Your task to perform on an android device: Go to battery settings Image 0: 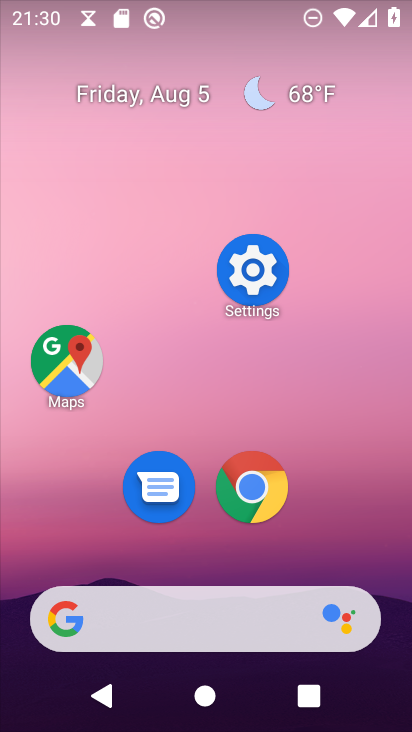
Step 0: click (245, 271)
Your task to perform on an android device: Go to battery settings Image 1: 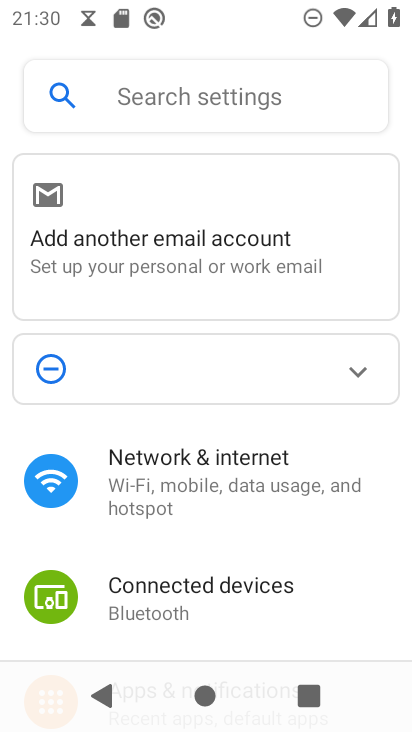
Step 1: drag from (227, 632) to (334, 233)
Your task to perform on an android device: Go to battery settings Image 2: 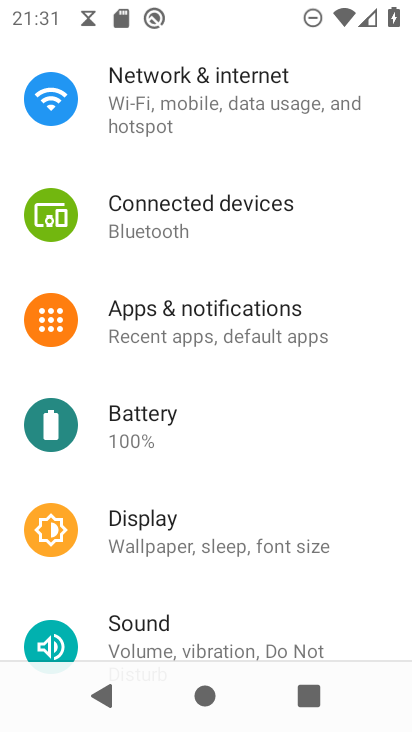
Step 2: click (164, 405)
Your task to perform on an android device: Go to battery settings Image 3: 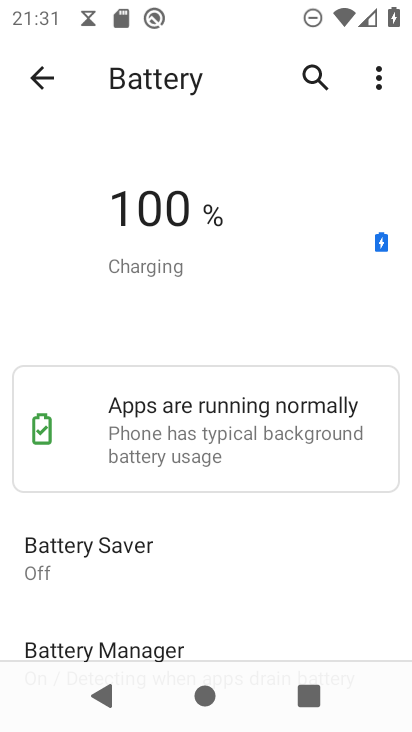
Step 3: task complete